Your task to perform on an android device: turn off priority inbox in the gmail app Image 0: 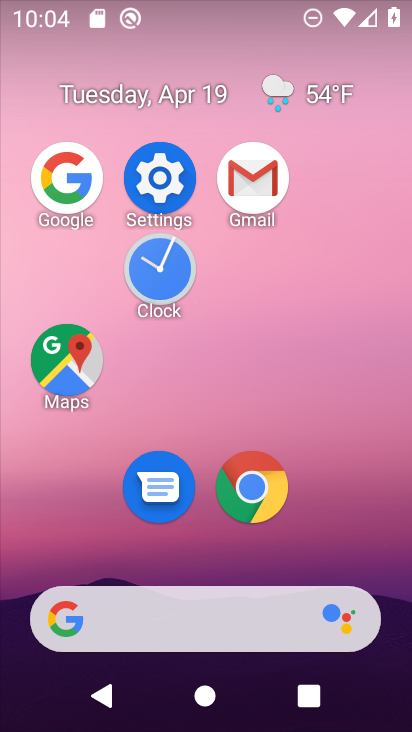
Step 0: click (241, 190)
Your task to perform on an android device: turn off priority inbox in the gmail app Image 1: 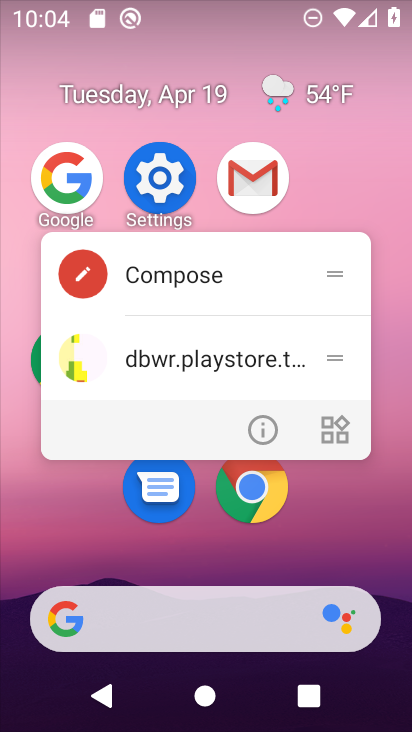
Step 1: click (250, 181)
Your task to perform on an android device: turn off priority inbox in the gmail app Image 2: 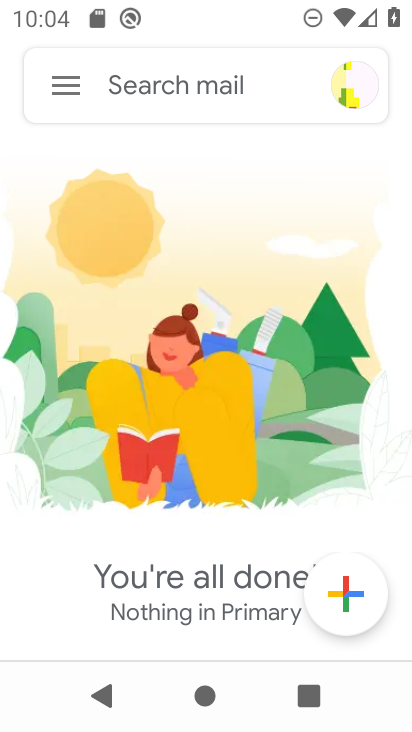
Step 2: click (72, 79)
Your task to perform on an android device: turn off priority inbox in the gmail app Image 3: 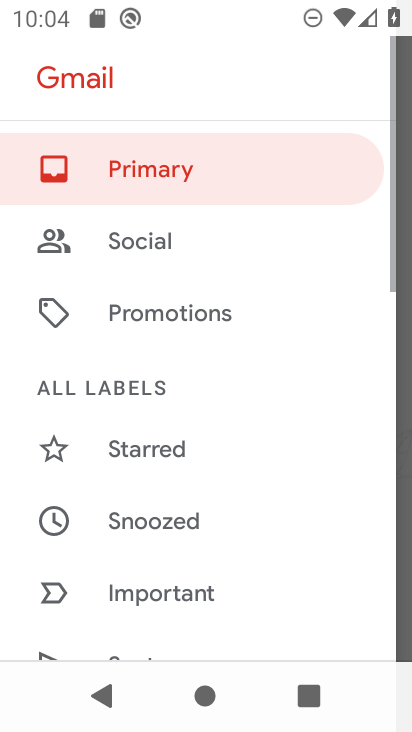
Step 3: drag from (195, 564) to (248, 97)
Your task to perform on an android device: turn off priority inbox in the gmail app Image 4: 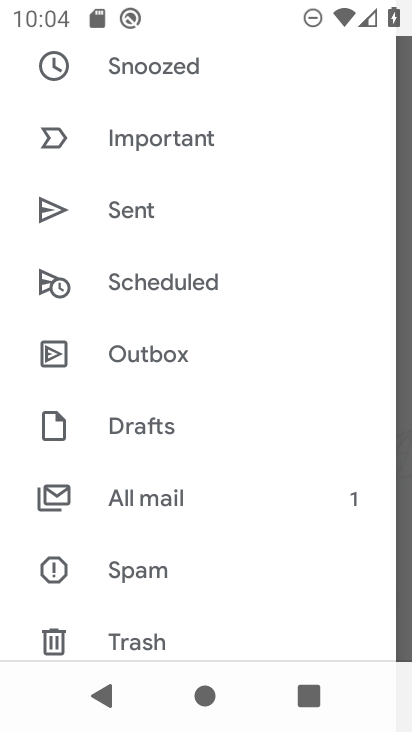
Step 4: drag from (220, 559) to (258, 118)
Your task to perform on an android device: turn off priority inbox in the gmail app Image 5: 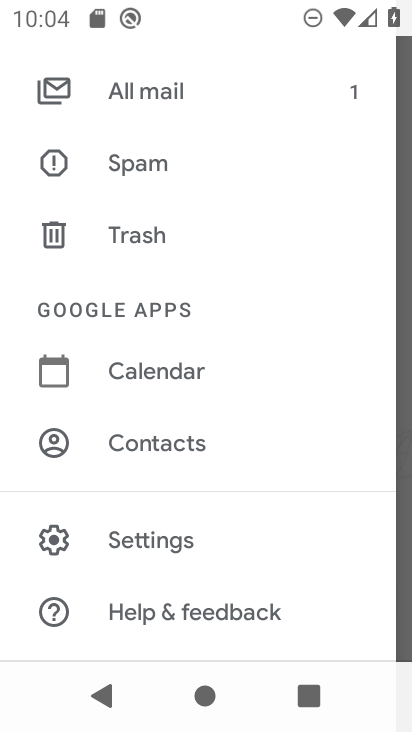
Step 5: click (184, 543)
Your task to perform on an android device: turn off priority inbox in the gmail app Image 6: 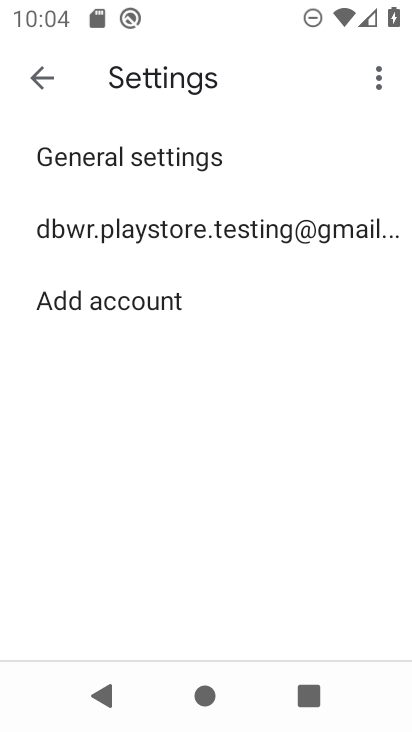
Step 6: click (267, 224)
Your task to perform on an android device: turn off priority inbox in the gmail app Image 7: 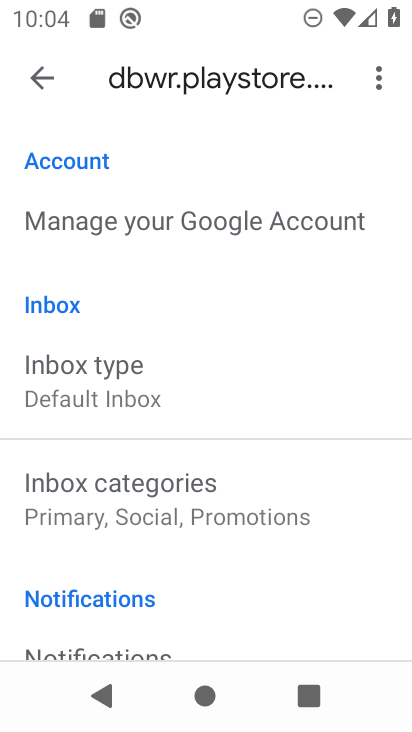
Step 7: click (223, 406)
Your task to perform on an android device: turn off priority inbox in the gmail app Image 8: 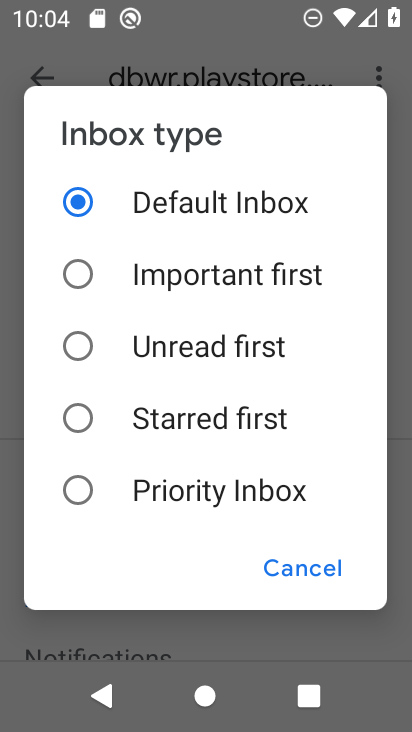
Step 8: task complete